Your task to perform on an android device: turn on the 24-hour format for clock Image 0: 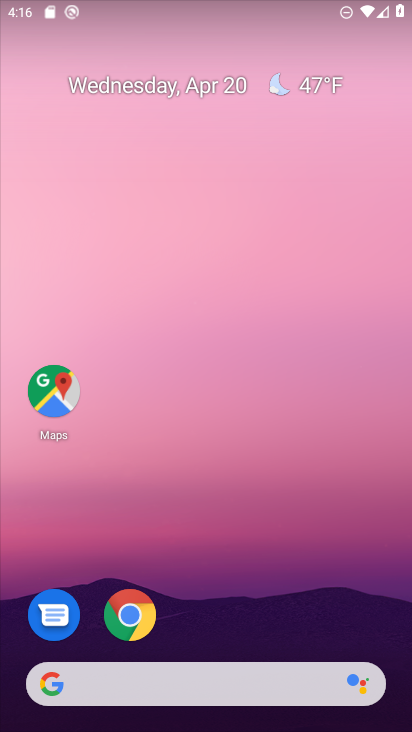
Step 0: drag from (259, 264) to (256, 12)
Your task to perform on an android device: turn on the 24-hour format for clock Image 1: 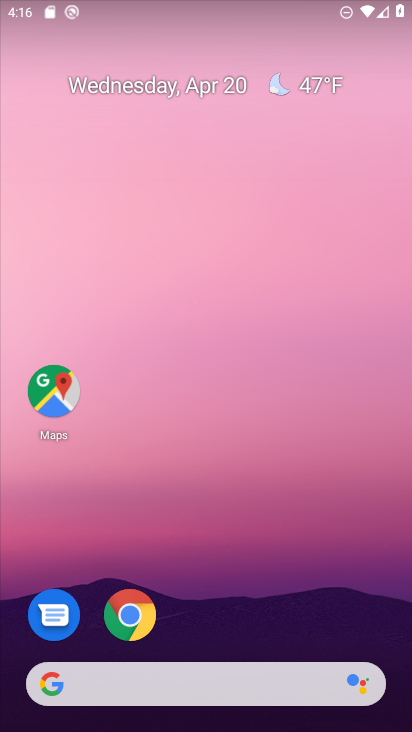
Step 1: drag from (196, 567) to (218, 55)
Your task to perform on an android device: turn on the 24-hour format for clock Image 2: 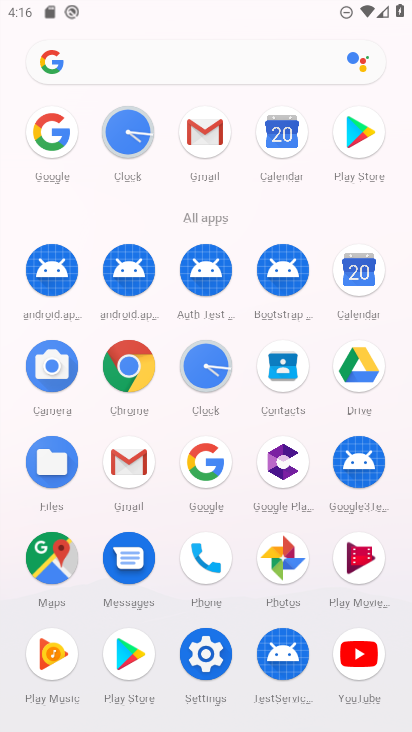
Step 2: click (214, 357)
Your task to perform on an android device: turn on the 24-hour format for clock Image 3: 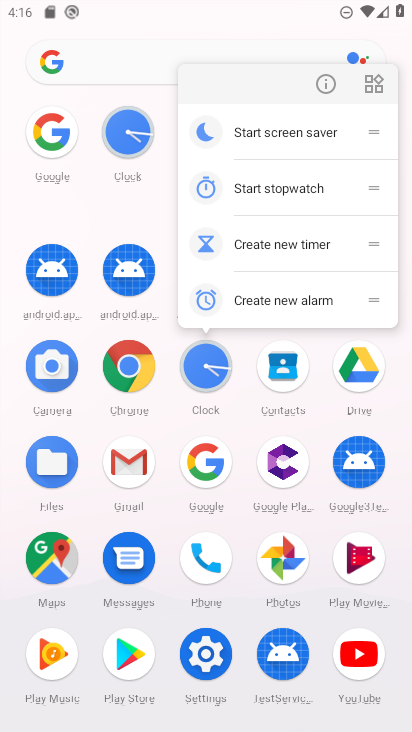
Step 3: click (115, 141)
Your task to perform on an android device: turn on the 24-hour format for clock Image 4: 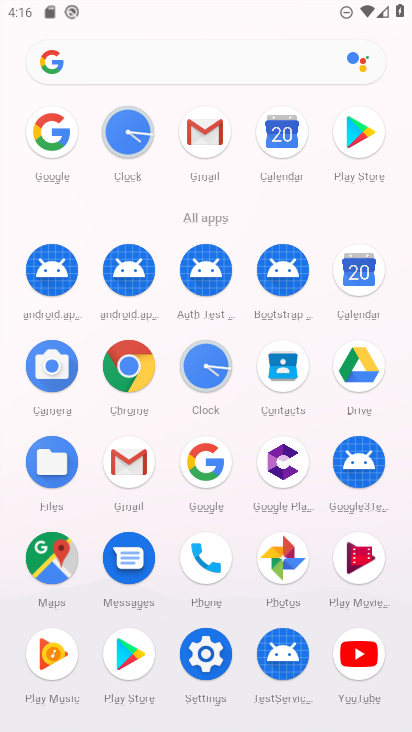
Step 4: click (125, 139)
Your task to perform on an android device: turn on the 24-hour format for clock Image 5: 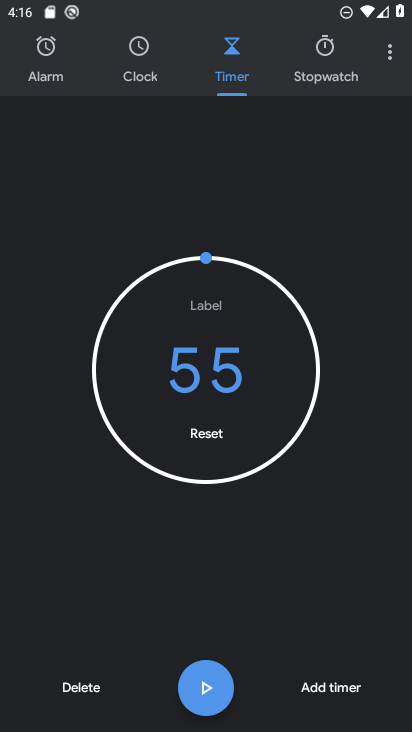
Step 5: click (384, 53)
Your task to perform on an android device: turn on the 24-hour format for clock Image 6: 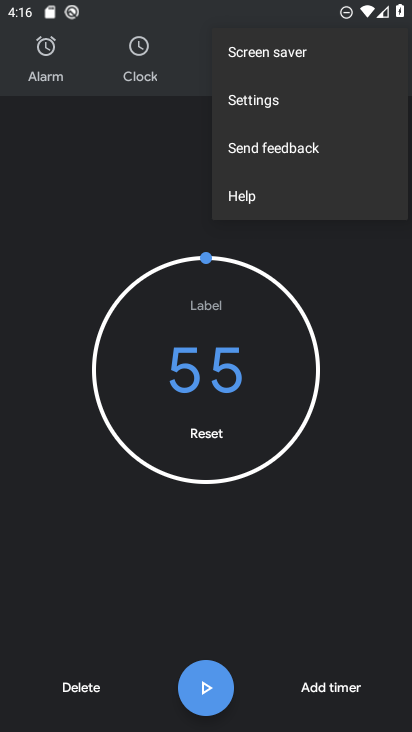
Step 6: click (280, 108)
Your task to perform on an android device: turn on the 24-hour format for clock Image 7: 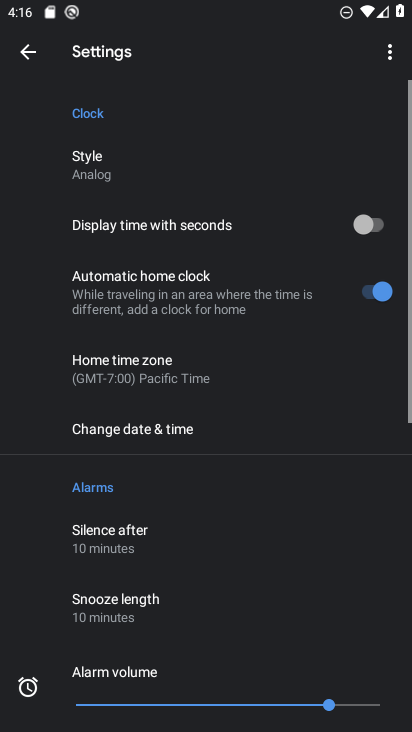
Step 7: drag from (215, 537) to (132, 56)
Your task to perform on an android device: turn on the 24-hour format for clock Image 8: 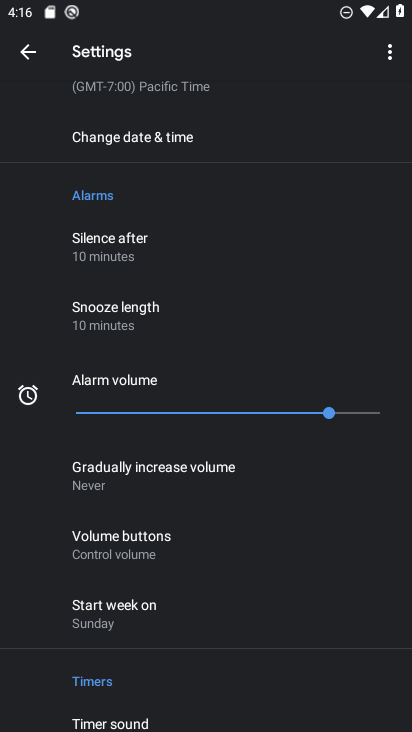
Step 8: drag from (172, 176) to (178, 108)
Your task to perform on an android device: turn on the 24-hour format for clock Image 9: 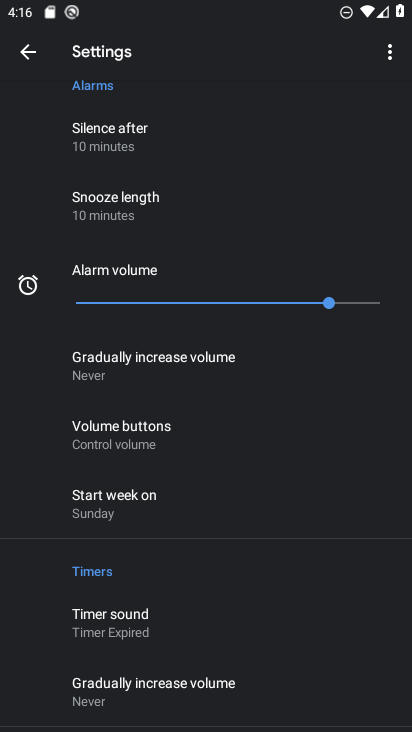
Step 9: drag from (149, 613) to (177, 203)
Your task to perform on an android device: turn on the 24-hour format for clock Image 10: 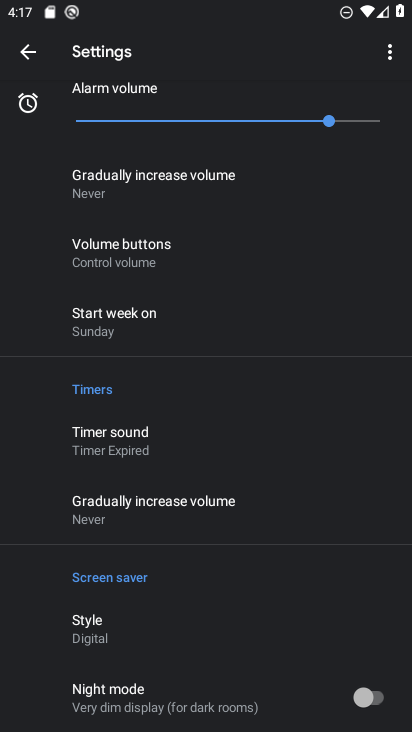
Step 10: drag from (189, 217) to (184, 728)
Your task to perform on an android device: turn on the 24-hour format for clock Image 11: 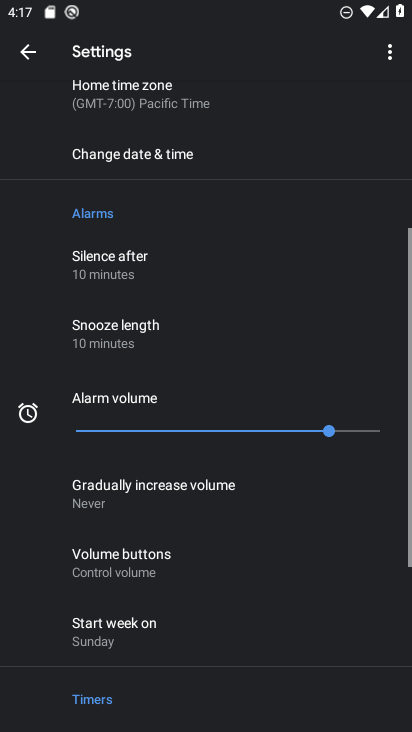
Step 11: drag from (256, 248) to (177, 731)
Your task to perform on an android device: turn on the 24-hour format for clock Image 12: 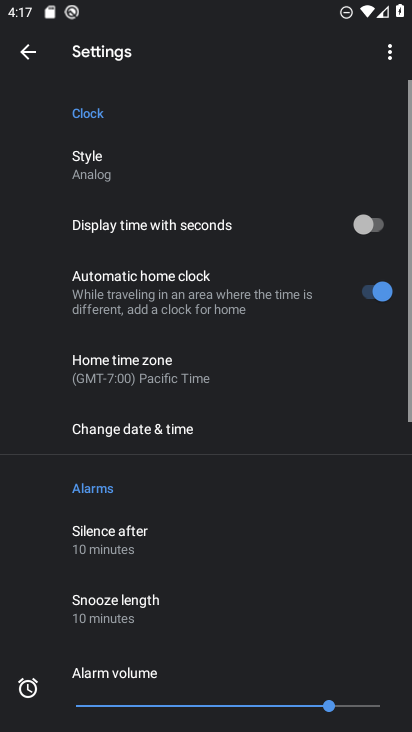
Step 12: drag from (263, 216) to (254, 731)
Your task to perform on an android device: turn on the 24-hour format for clock Image 13: 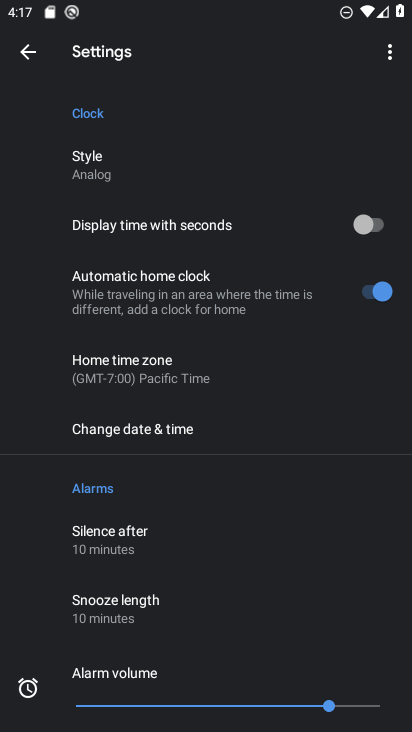
Step 13: click (132, 426)
Your task to perform on an android device: turn on the 24-hour format for clock Image 14: 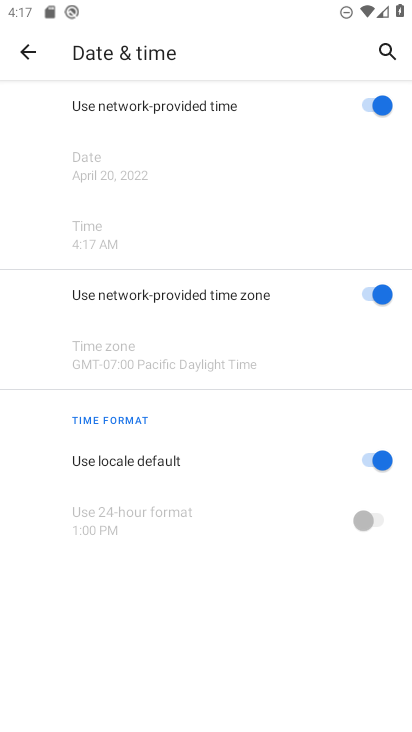
Step 14: click (386, 456)
Your task to perform on an android device: turn on the 24-hour format for clock Image 15: 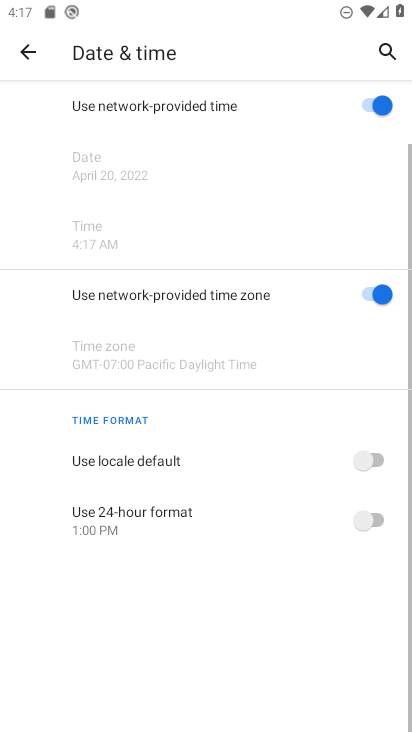
Step 15: click (362, 523)
Your task to perform on an android device: turn on the 24-hour format for clock Image 16: 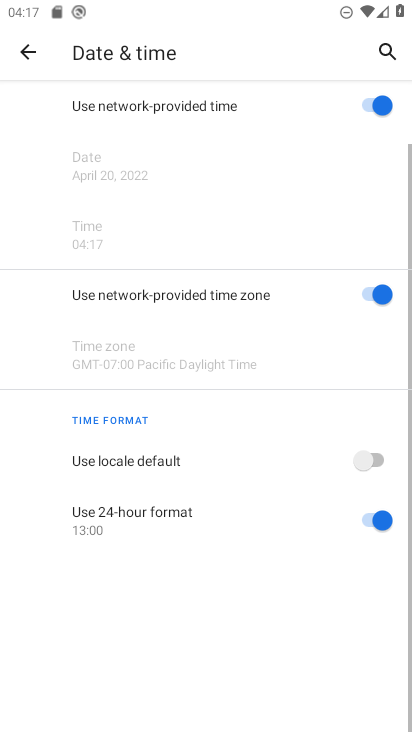
Step 16: task complete